Your task to perform on an android device: What is the recent news? Image 0: 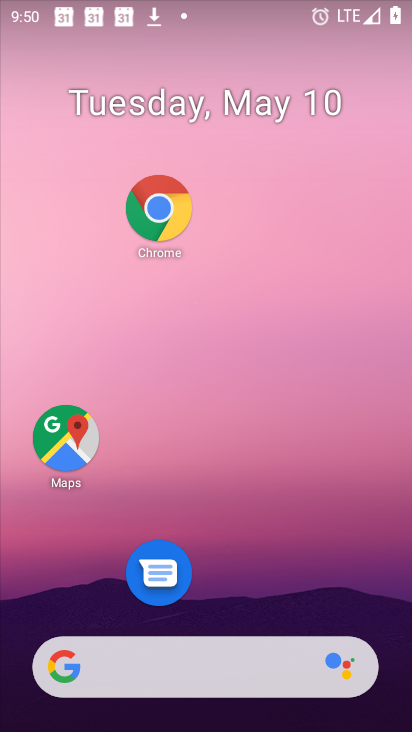
Step 0: drag from (246, 684) to (346, 212)
Your task to perform on an android device: What is the recent news? Image 1: 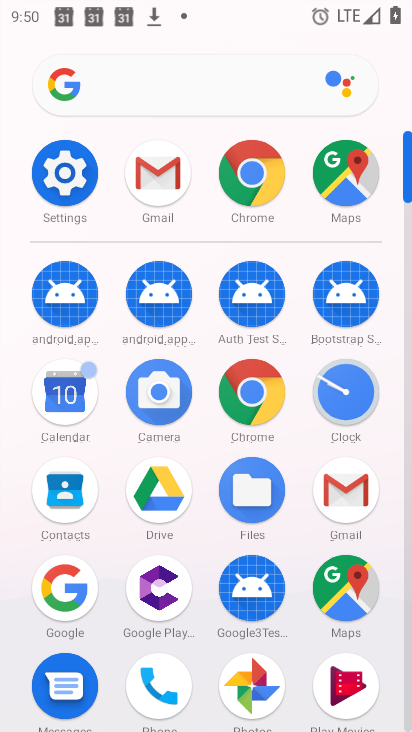
Step 1: click (157, 85)
Your task to perform on an android device: What is the recent news? Image 2: 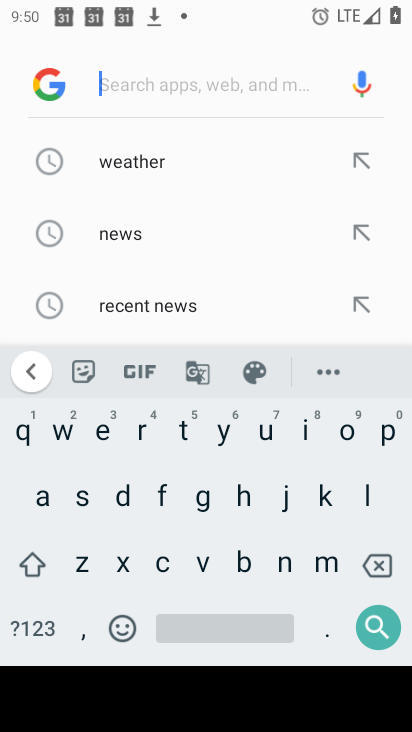
Step 2: click (160, 308)
Your task to perform on an android device: What is the recent news? Image 3: 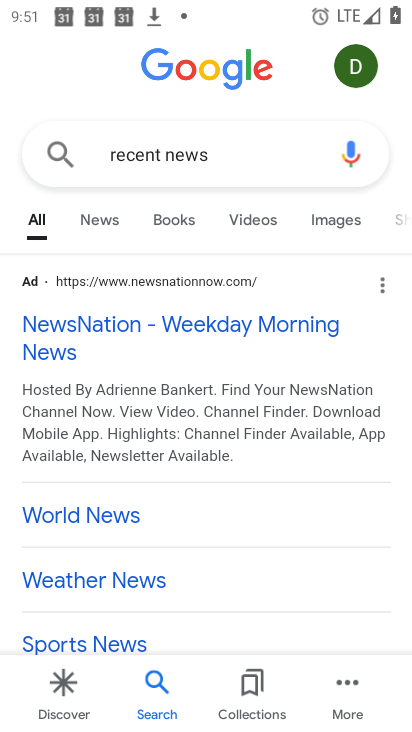
Step 3: task complete